Your task to perform on an android device: uninstall "Pluto TV - Live TV and Movies" Image 0: 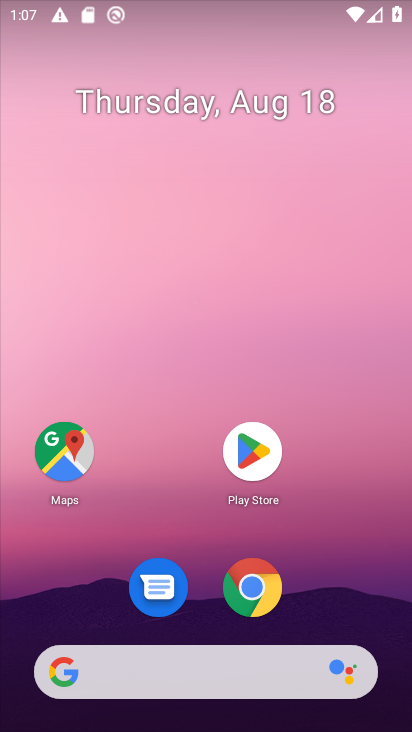
Step 0: press home button
Your task to perform on an android device: uninstall "Pluto TV - Live TV and Movies" Image 1: 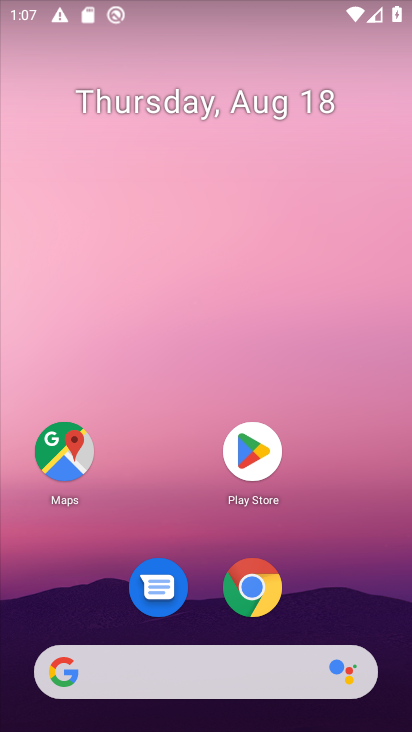
Step 1: click (256, 456)
Your task to perform on an android device: uninstall "Pluto TV - Live TV and Movies" Image 2: 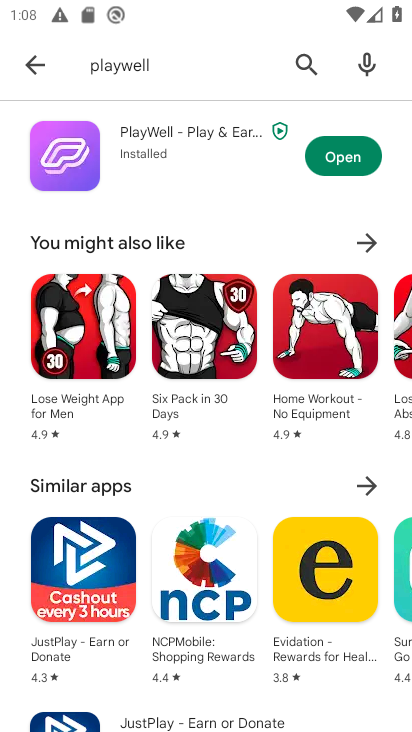
Step 2: click (303, 63)
Your task to perform on an android device: uninstall "Pluto TV - Live TV and Movies" Image 3: 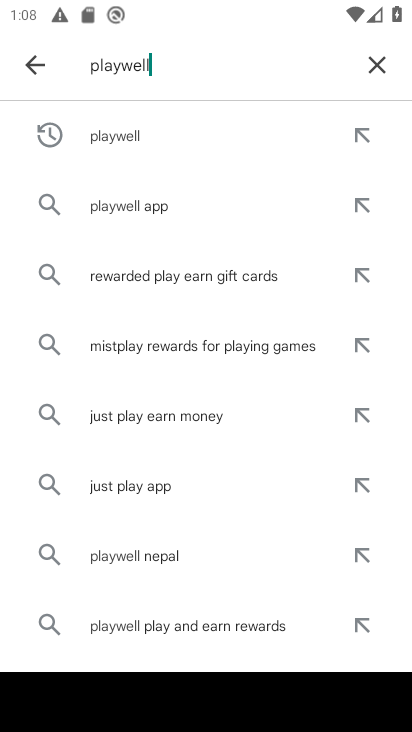
Step 3: click (381, 62)
Your task to perform on an android device: uninstall "Pluto TV - Live TV and Movies" Image 4: 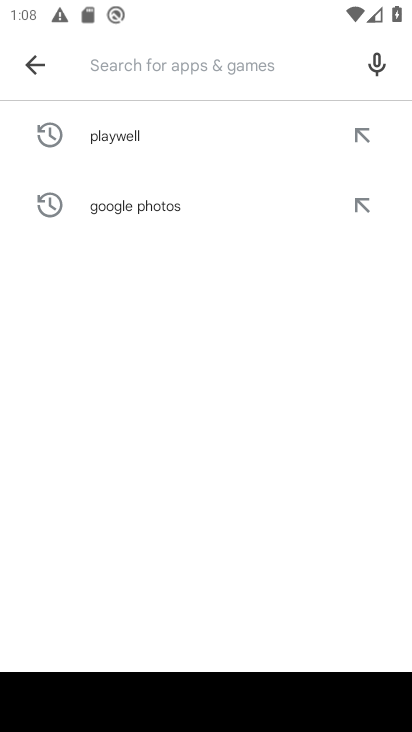
Step 4: type "Pluto TV - Live TV and Movies"
Your task to perform on an android device: uninstall "Pluto TV - Live TV and Movies" Image 5: 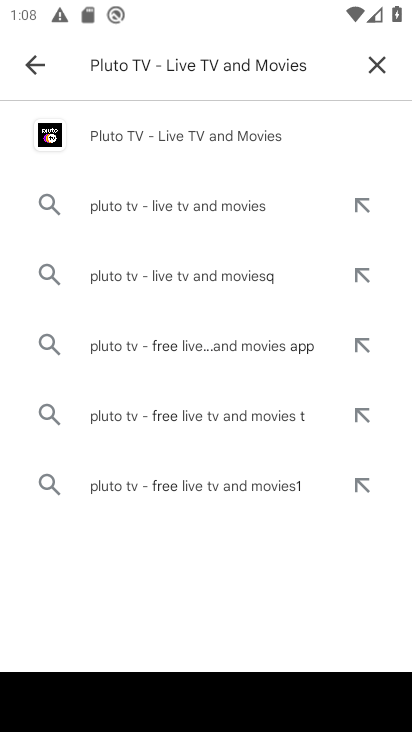
Step 5: click (229, 135)
Your task to perform on an android device: uninstall "Pluto TV - Live TV and Movies" Image 6: 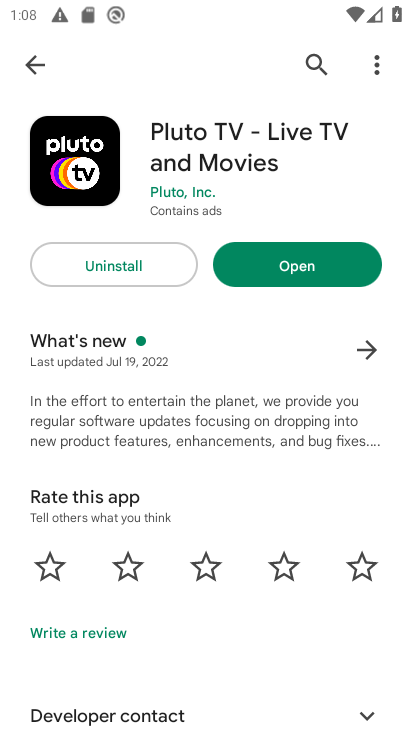
Step 6: click (128, 263)
Your task to perform on an android device: uninstall "Pluto TV - Live TV and Movies" Image 7: 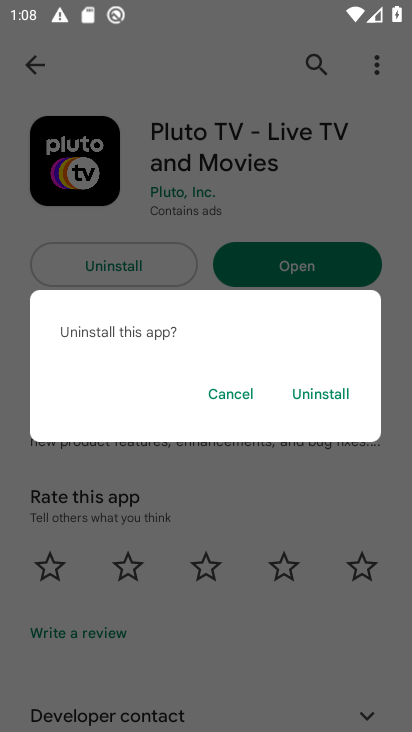
Step 7: click (314, 390)
Your task to perform on an android device: uninstall "Pluto TV - Live TV and Movies" Image 8: 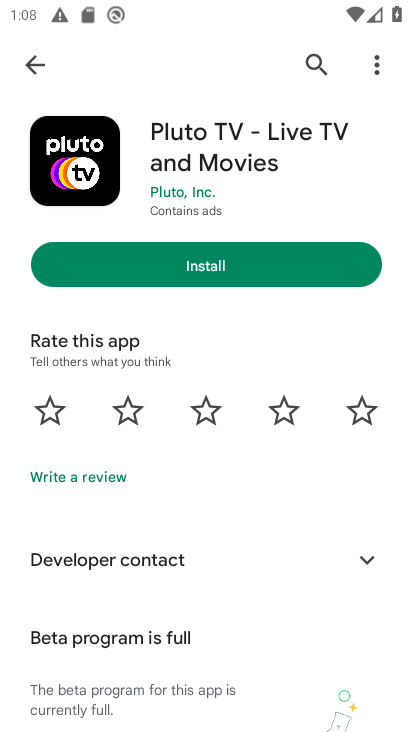
Step 8: task complete